Your task to perform on an android device: empty trash in the gmail app Image 0: 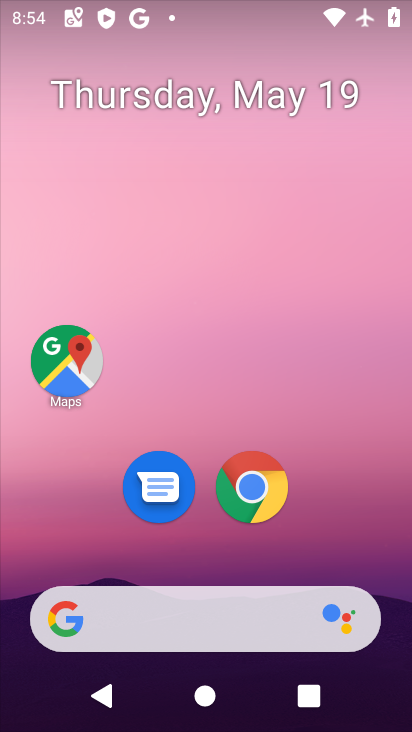
Step 0: drag from (228, 570) to (165, 14)
Your task to perform on an android device: empty trash in the gmail app Image 1: 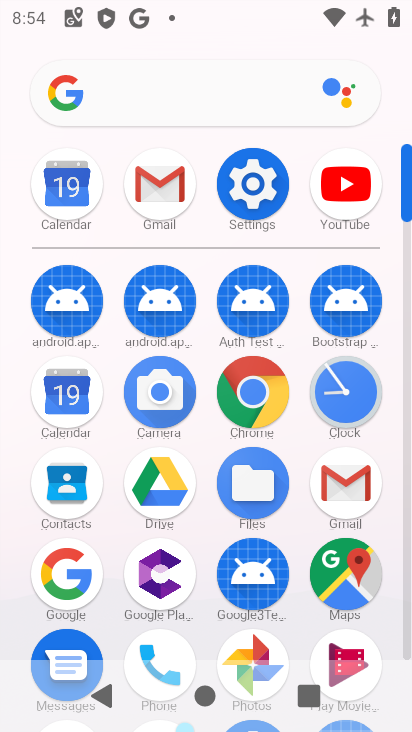
Step 1: click (352, 488)
Your task to perform on an android device: empty trash in the gmail app Image 2: 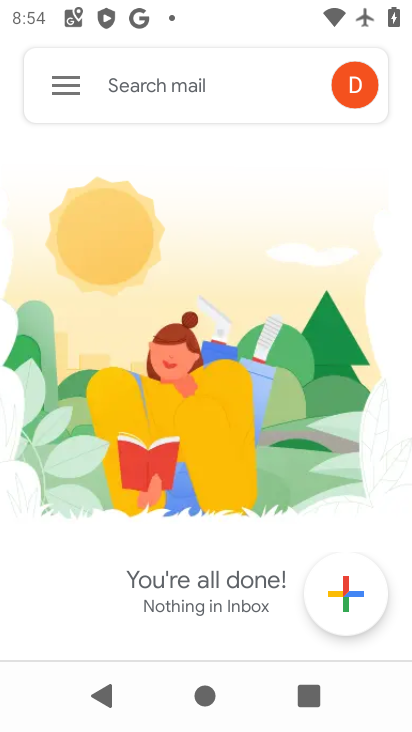
Step 2: click (57, 81)
Your task to perform on an android device: empty trash in the gmail app Image 3: 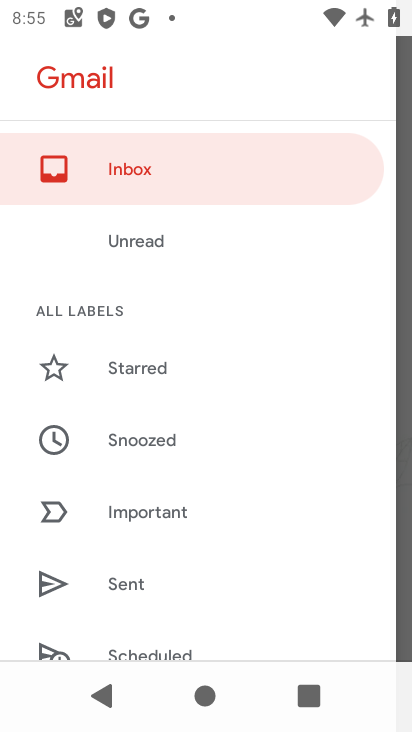
Step 3: drag from (215, 548) to (163, 220)
Your task to perform on an android device: empty trash in the gmail app Image 4: 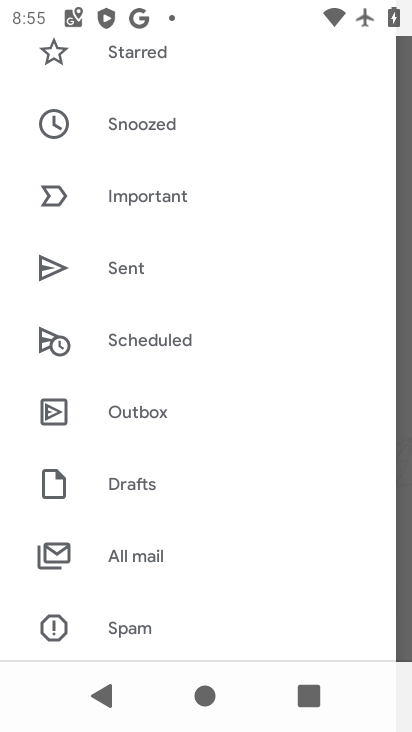
Step 4: drag from (191, 559) to (143, 173)
Your task to perform on an android device: empty trash in the gmail app Image 5: 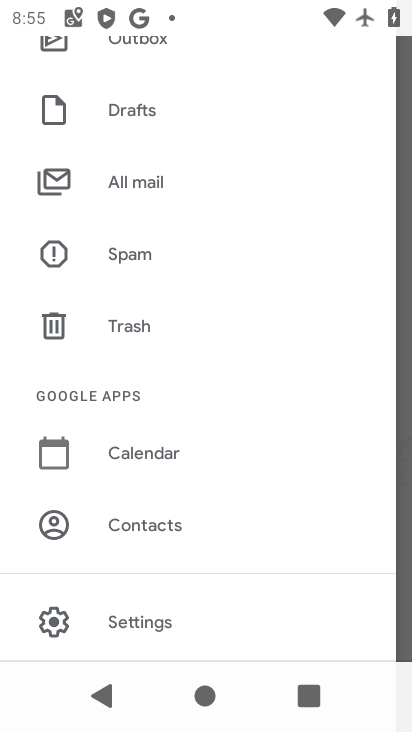
Step 5: click (103, 340)
Your task to perform on an android device: empty trash in the gmail app Image 6: 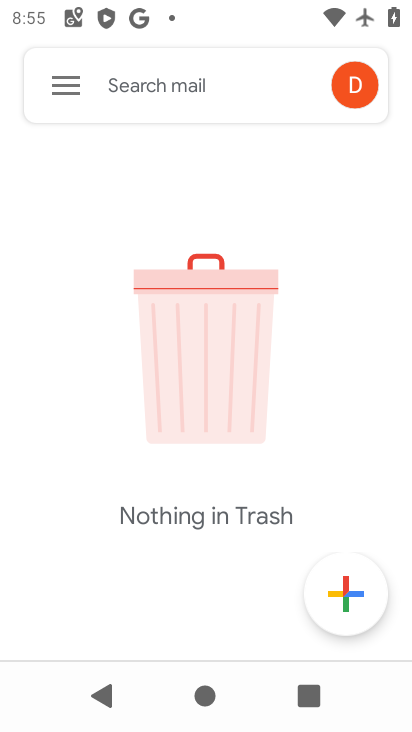
Step 6: task complete